Your task to perform on an android device: delete a single message in the gmail app Image 0: 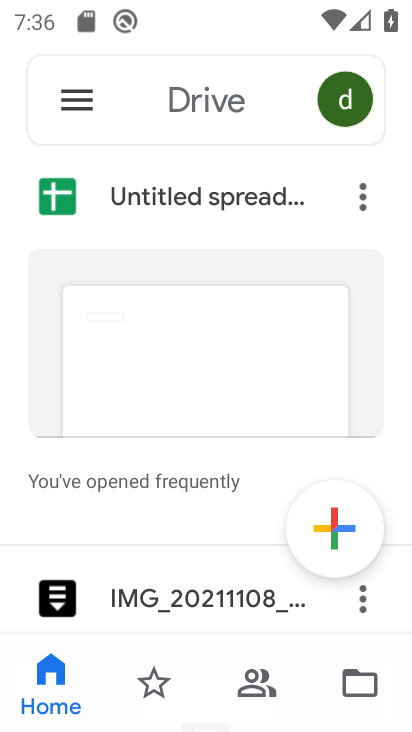
Step 0: press home button
Your task to perform on an android device: delete a single message in the gmail app Image 1: 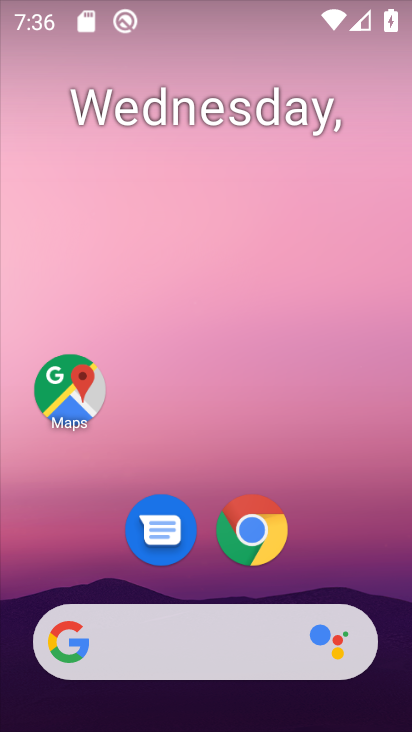
Step 1: drag from (400, 637) to (321, 67)
Your task to perform on an android device: delete a single message in the gmail app Image 2: 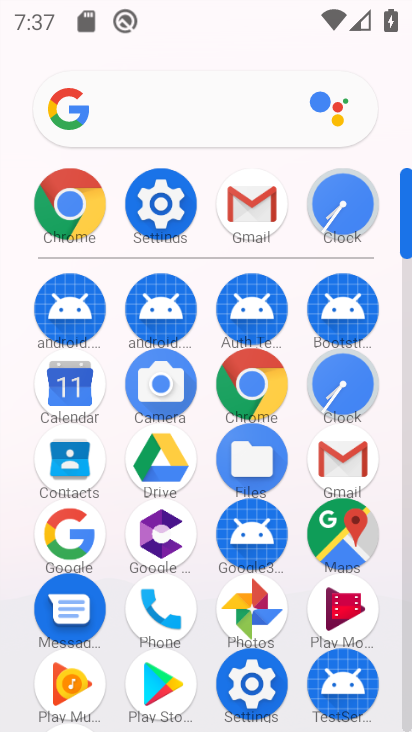
Step 2: click (345, 465)
Your task to perform on an android device: delete a single message in the gmail app Image 3: 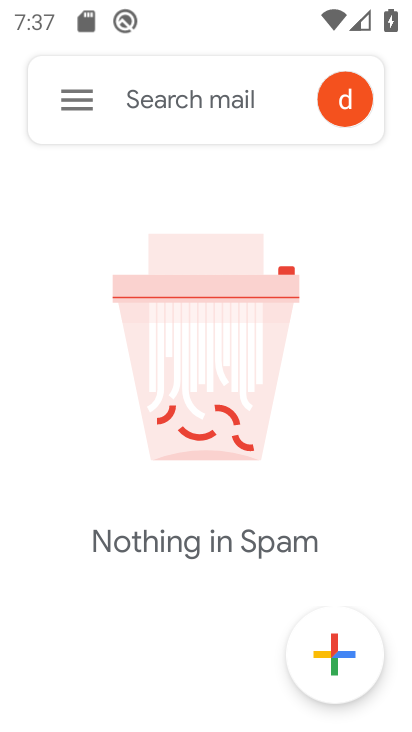
Step 3: click (89, 121)
Your task to perform on an android device: delete a single message in the gmail app Image 4: 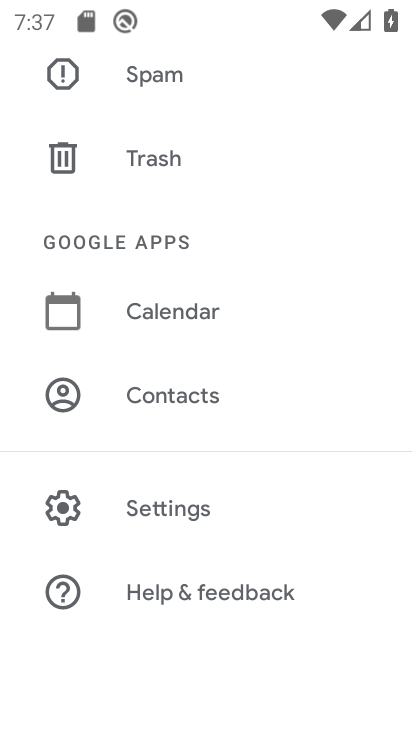
Step 4: drag from (117, 167) to (86, 726)
Your task to perform on an android device: delete a single message in the gmail app Image 5: 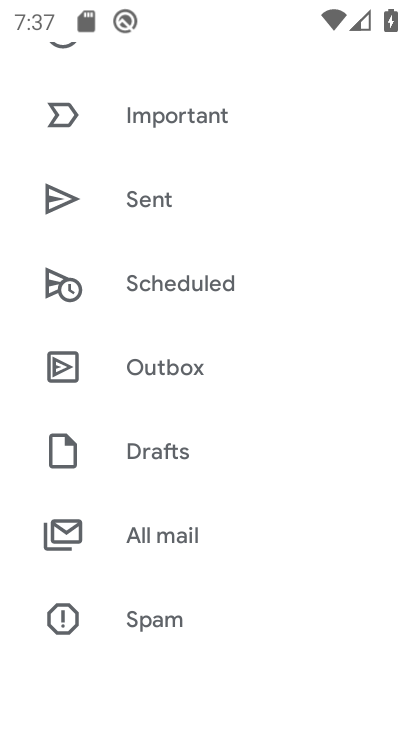
Step 5: drag from (157, 229) to (143, 729)
Your task to perform on an android device: delete a single message in the gmail app Image 6: 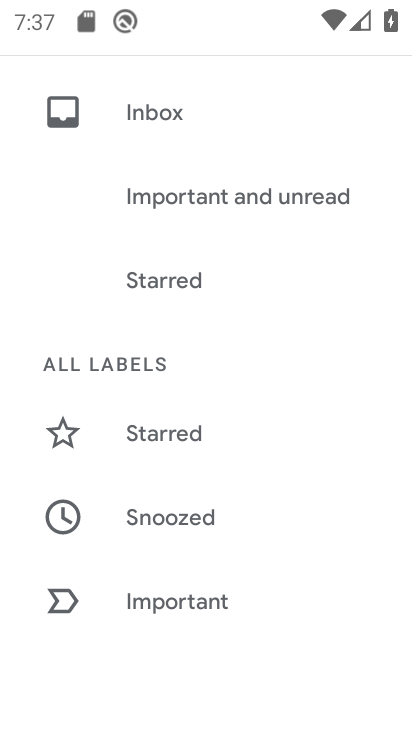
Step 6: click (199, 118)
Your task to perform on an android device: delete a single message in the gmail app Image 7: 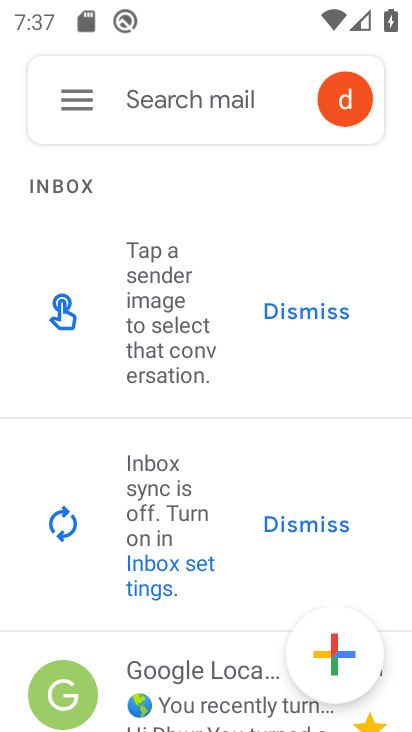
Step 7: click (200, 647)
Your task to perform on an android device: delete a single message in the gmail app Image 8: 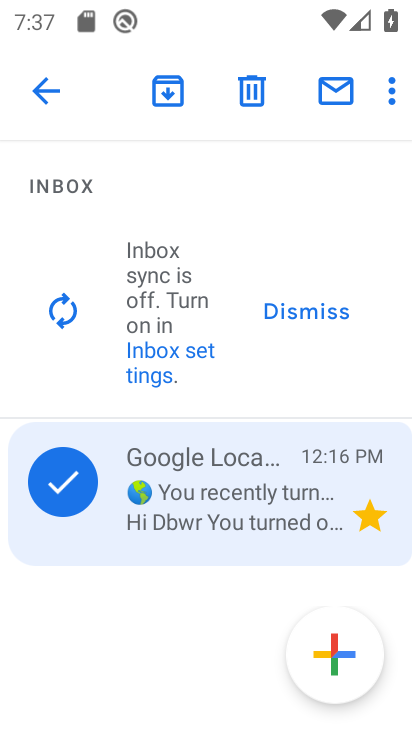
Step 8: click (253, 86)
Your task to perform on an android device: delete a single message in the gmail app Image 9: 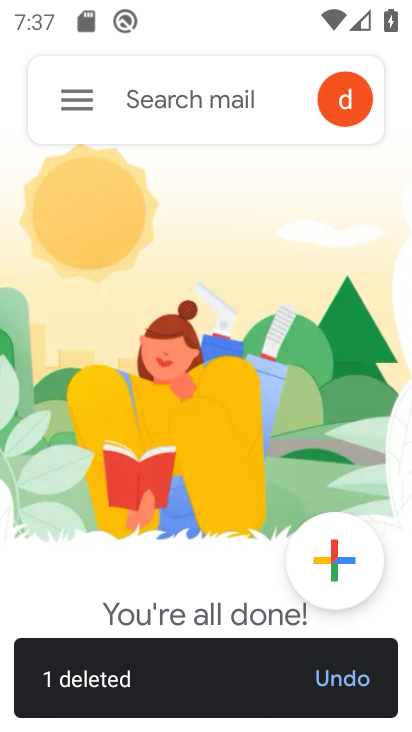
Step 9: task complete